Your task to perform on an android device: Open Youtube and go to the subscriptions tab Image 0: 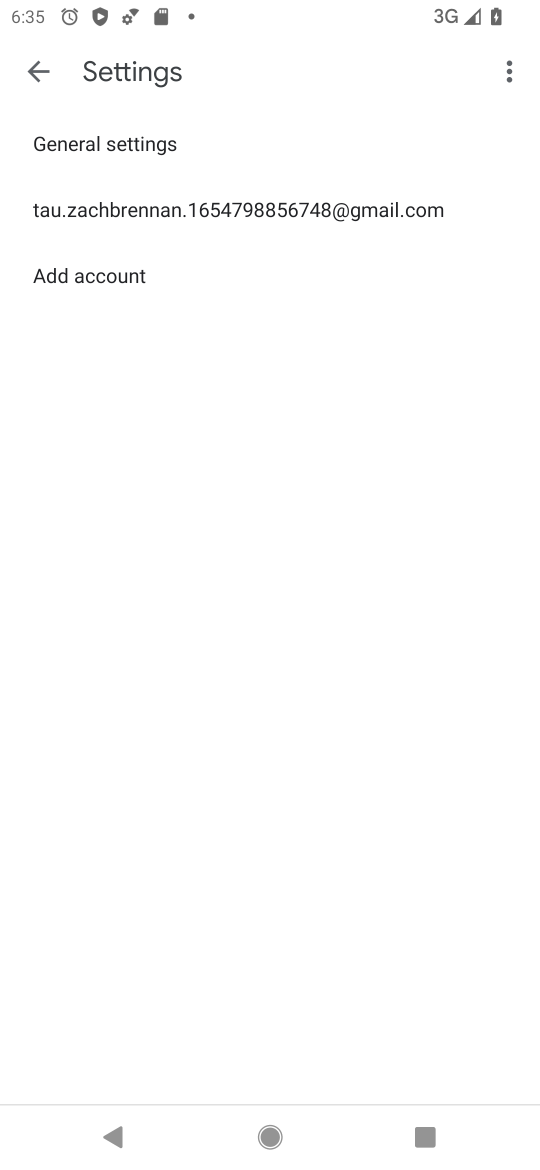
Step 0: press home button
Your task to perform on an android device: Open Youtube and go to the subscriptions tab Image 1: 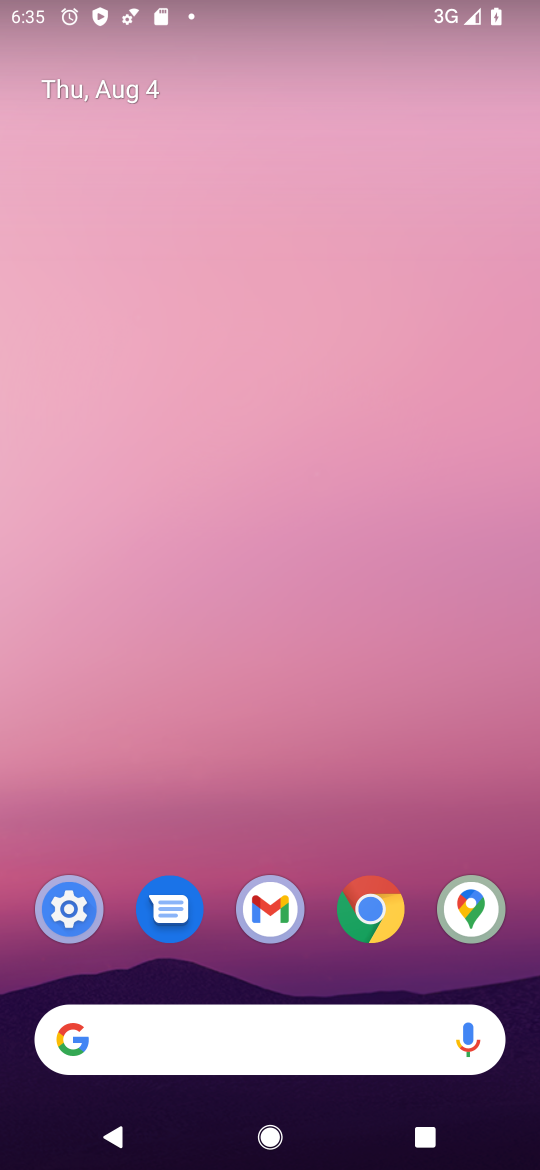
Step 1: drag from (165, 1006) to (112, 307)
Your task to perform on an android device: Open Youtube and go to the subscriptions tab Image 2: 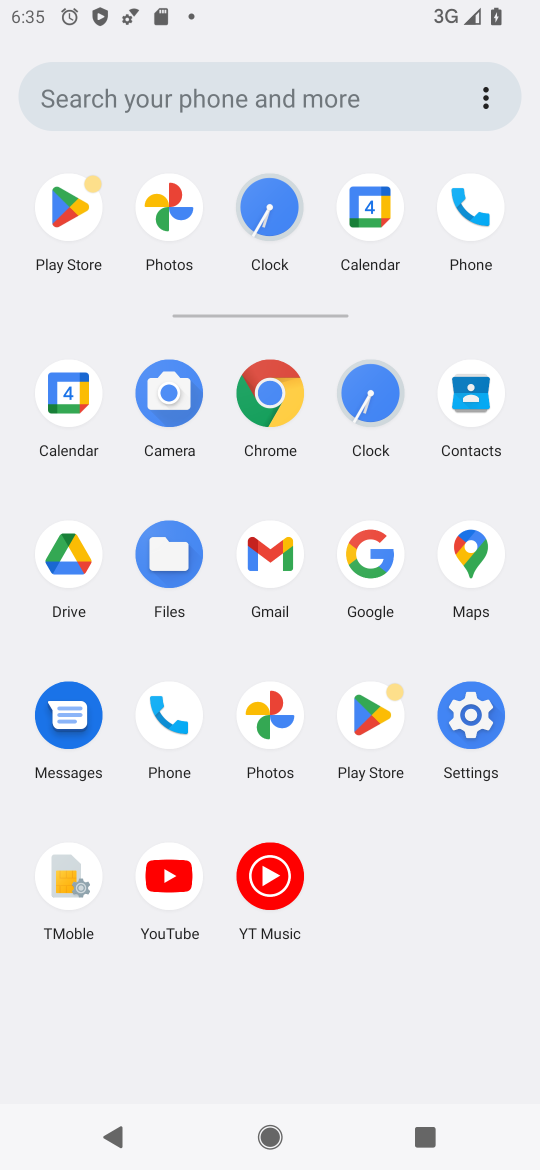
Step 2: click (175, 878)
Your task to perform on an android device: Open Youtube and go to the subscriptions tab Image 3: 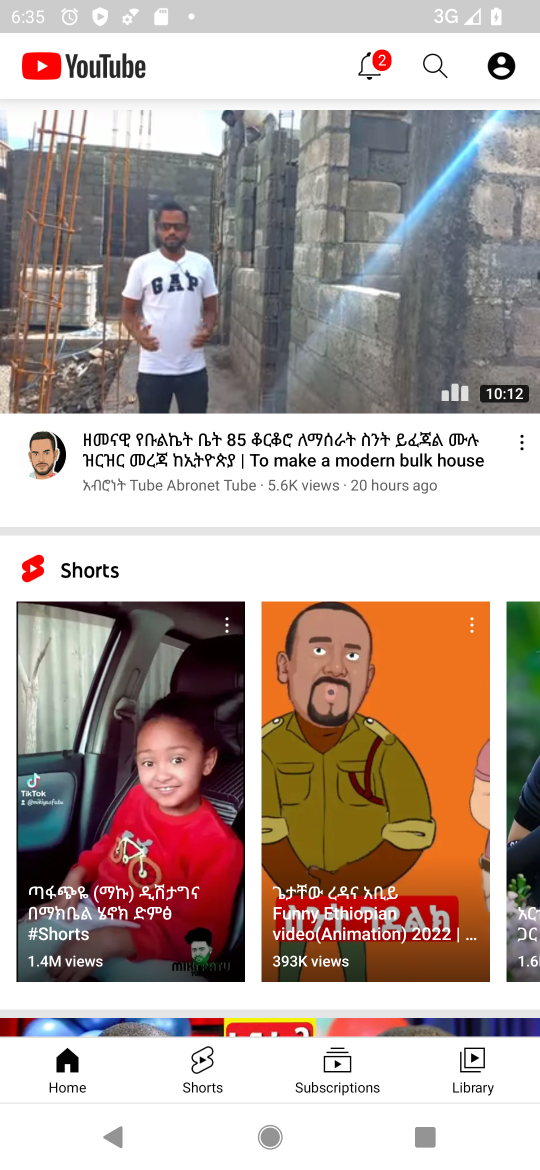
Step 3: click (344, 1054)
Your task to perform on an android device: Open Youtube and go to the subscriptions tab Image 4: 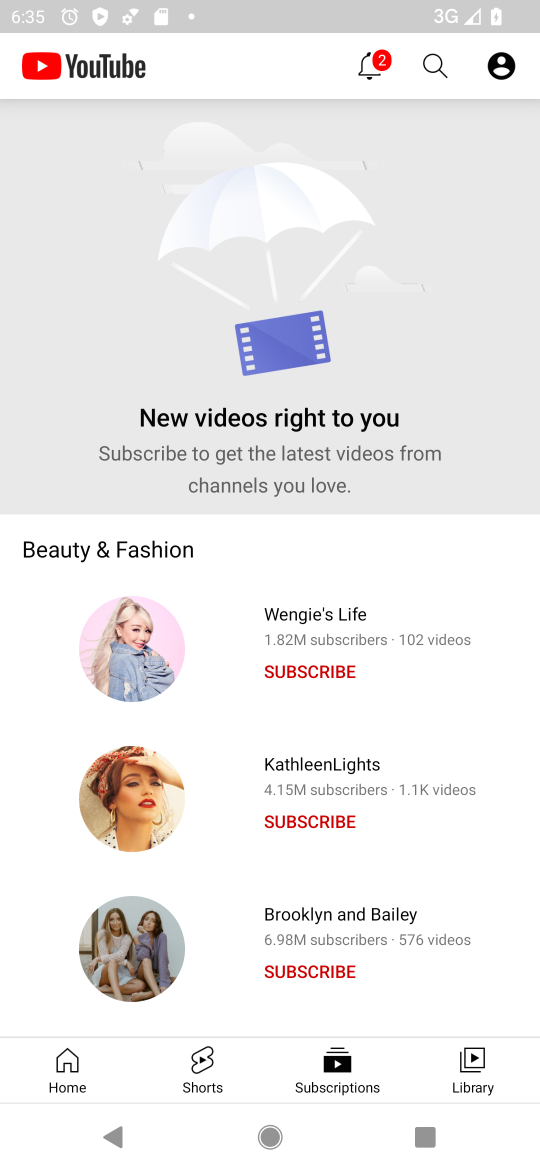
Step 4: task complete